Your task to perform on an android device: Open accessibility settings Image 0: 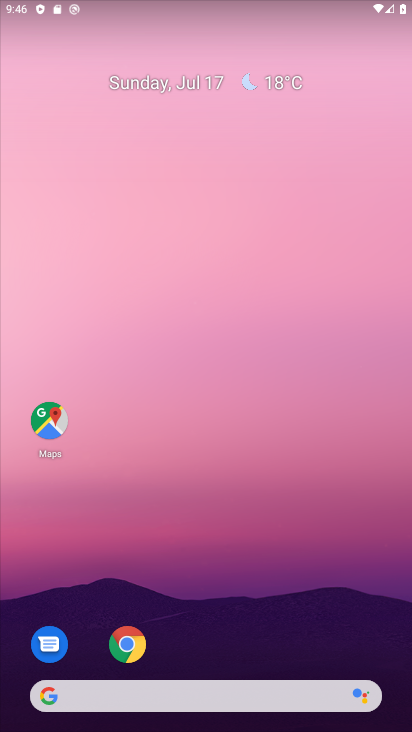
Step 0: drag from (396, 694) to (330, 4)
Your task to perform on an android device: Open accessibility settings Image 1: 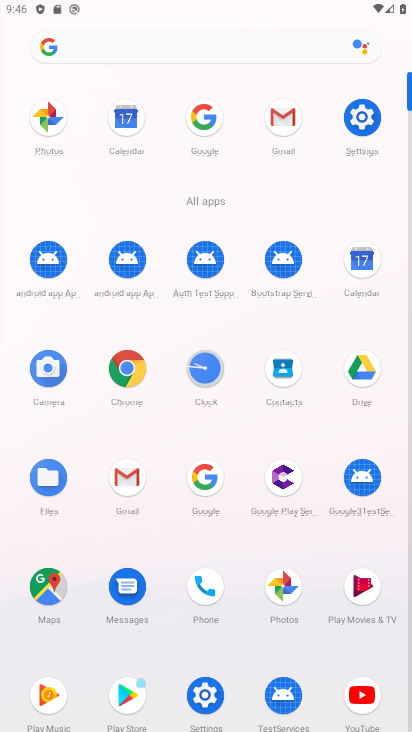
Step 1: click (368, 125)
Your task to perform on an android device: Open accessibility settings Image 2: 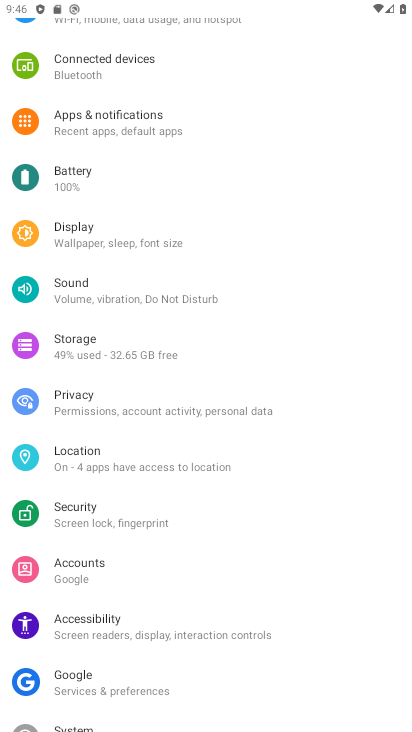
Step 2: click (97, 629)
Your task to perform on an android device: Open accessibility settings Image 3: 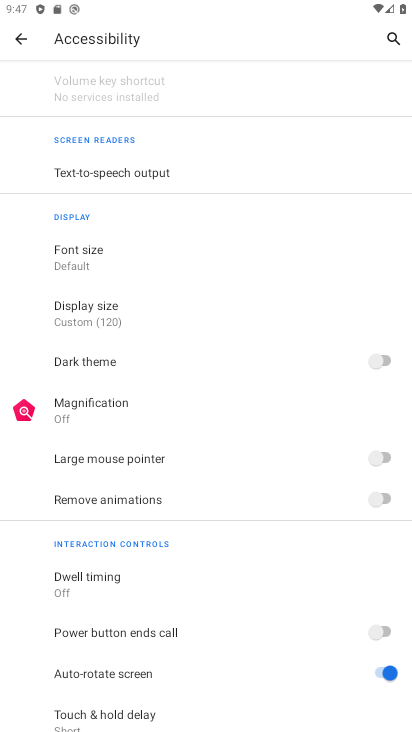
Step 3: task complete